Your task to perform on an android device: Play the last video I watched on Youtube Image 0: 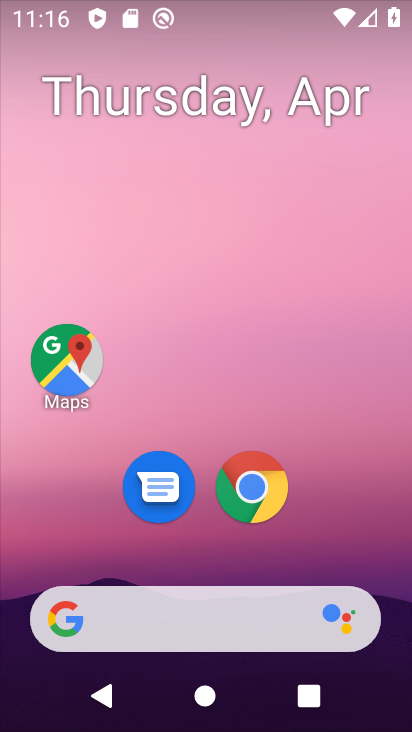
Step 0: drag from (329, 593) to (338, 164)
Your task to perform on an android device: Play the last video I watched on Youtube Image 1: 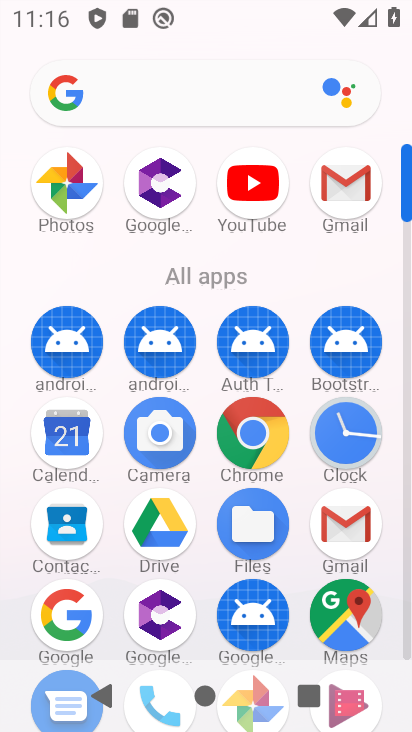
Step 1: click (256, 199)
Your task to perform on an android device: Play the last video I watched on Youtube Image 2: 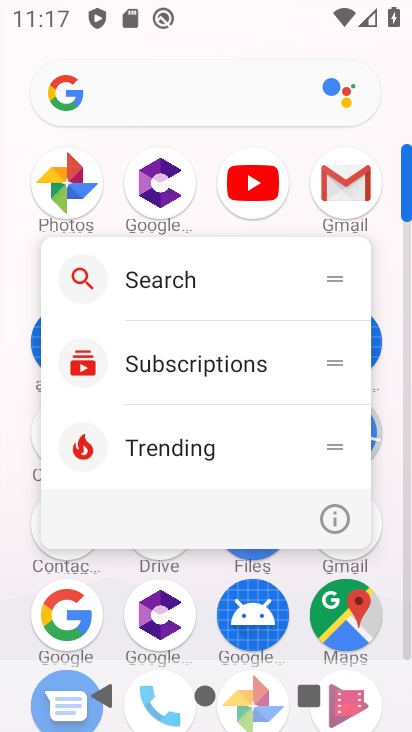
Step 2: click (242, 185)
Your task to perform on an android device: Play the last video I watched on Youtube Image 3: 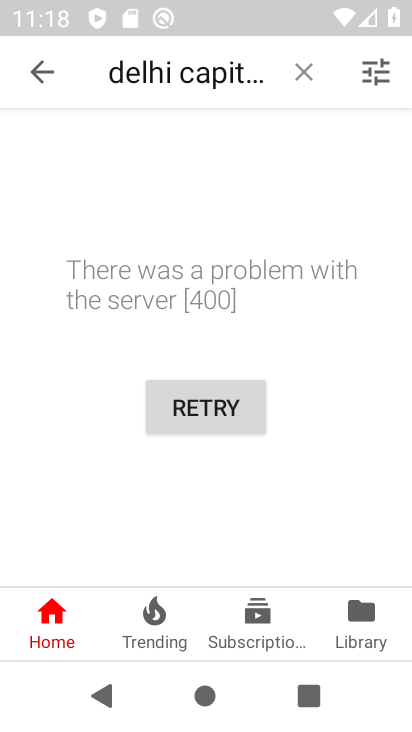
Step 3: click (47, 73)
Your task to perform on an android device: Play the last video I watched on Youtube Image 4: 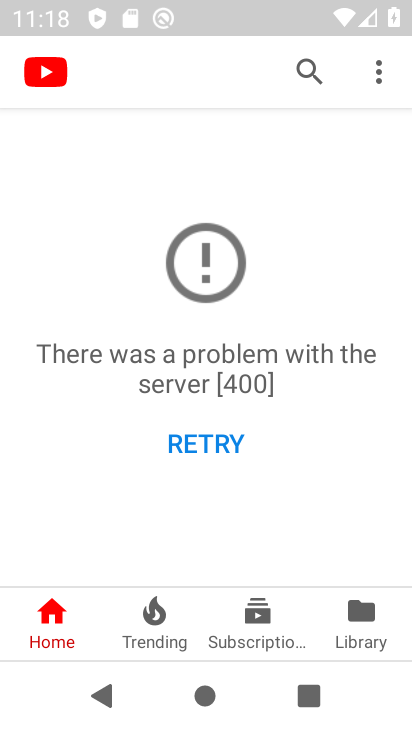
Step 4: task complete